Your task to perform on an android device: What is the news today? Image 0: 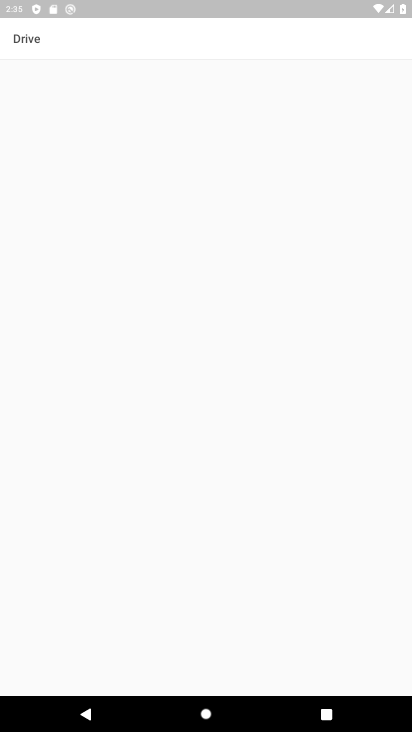
Step 0: press home button
Your task to perform on an android device: What is the news today? Image 1: 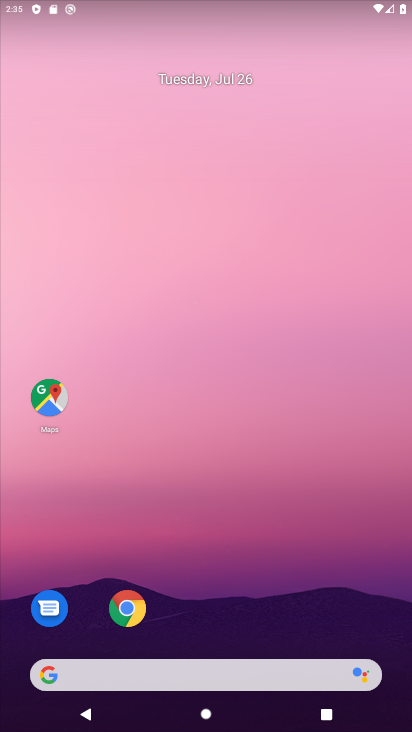
Step 1: click (242, 670)
Your task to perform on an android device: What is the news today? Image 2: 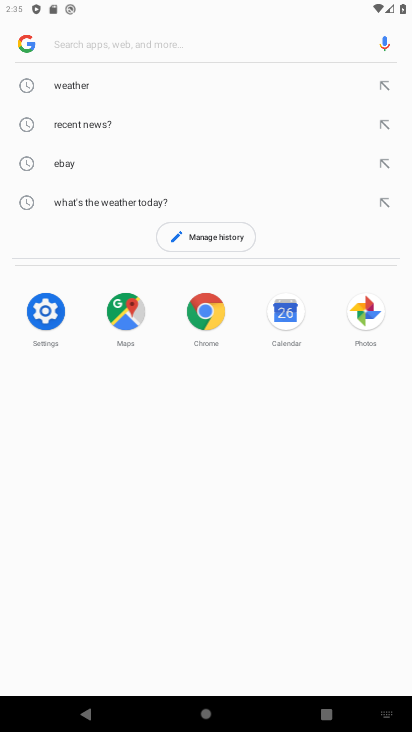
Step 2: type "what is the news today"
Your task to perform on an android device: What is the news today? Image 3: 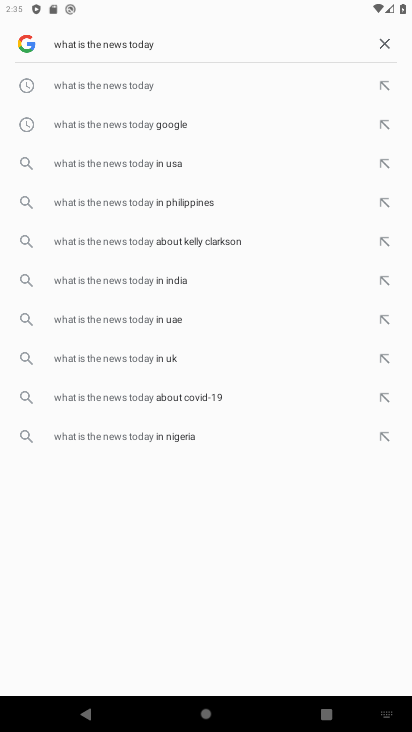
Step 3: click (124, 87)
Your task to perform on an android device: What is the news today? Image 4: 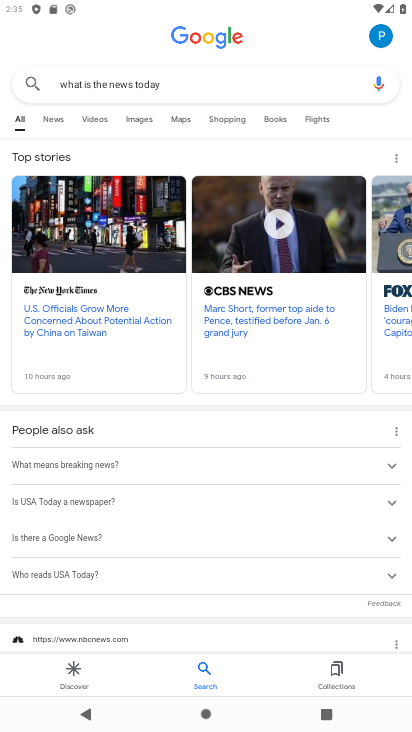
Step 4: click (43, 118)
Your task to perform on an android device: What is the news today? Image 5: 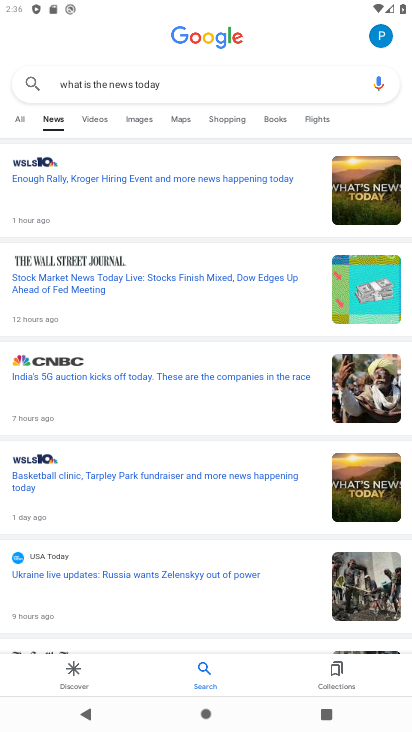
Step 5: task complete